Your task to perform on an android device: Search for Italian restaurants on Maps Image 0: 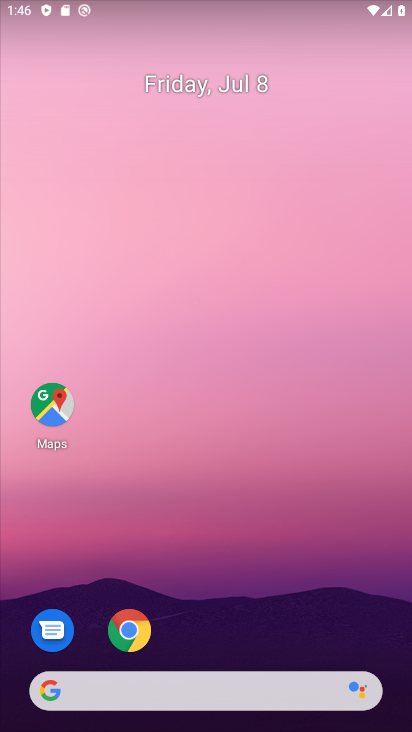
Step 0: drag from (276, 620) to (244, 146)
Your task to perform on an android device: Search for Italian restaurants on Maps Image 1: 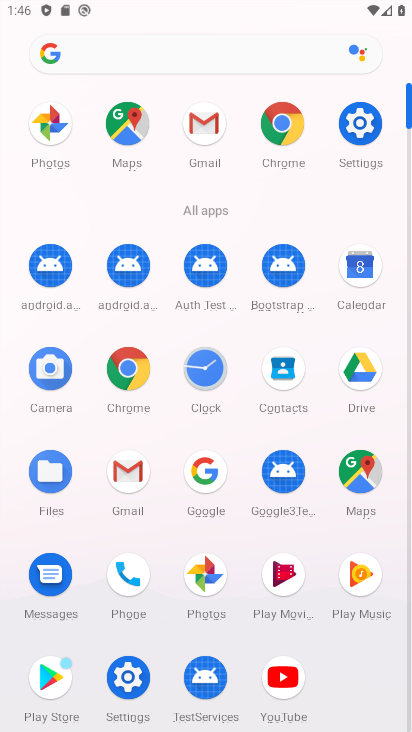
Step 1: click (359, 461)
Your task to perform on an android device: Search for Italian restaurants on Maps Image 2: 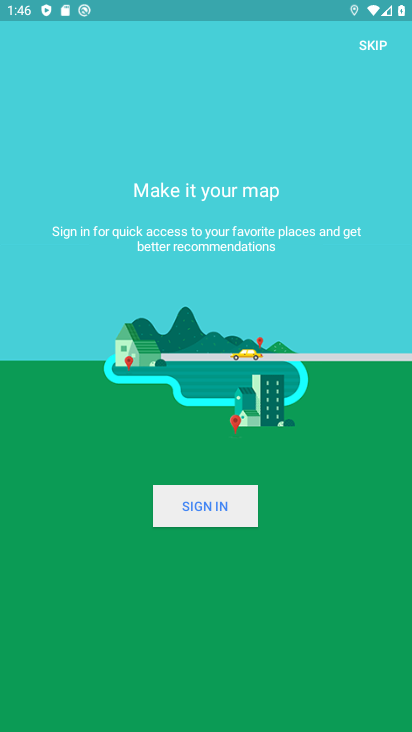
Step 2: click (371, 38)
Your task to perform on an android device: Search for Italian restaurants on Maps Image 3: 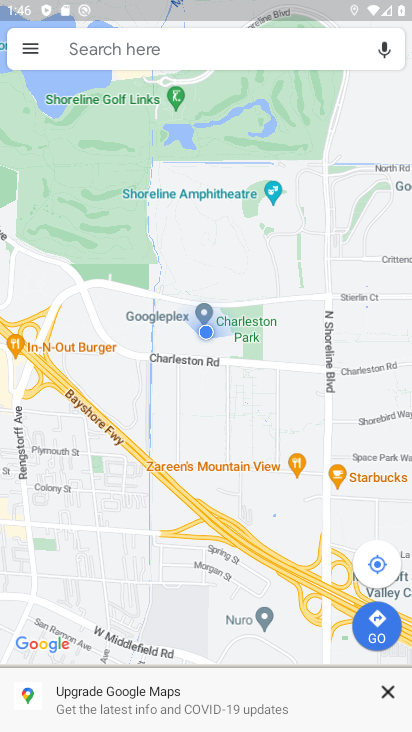
Step 3: click (244, 46)
Your task to perform on an android device: Search for Italian restaurants on Maps Image 4: 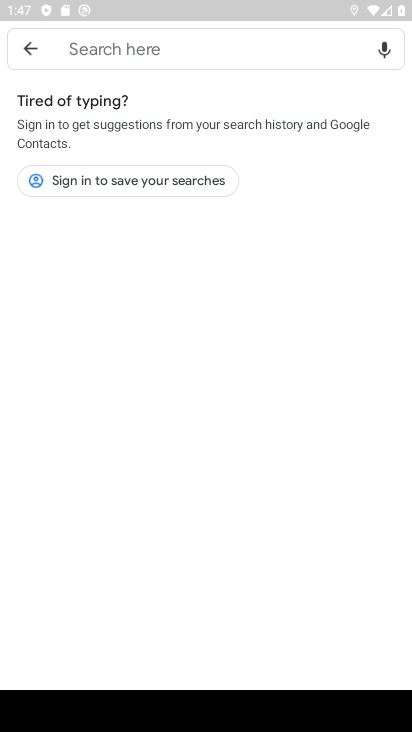
Step 4: type "Italian restaurants"
Your task to perform on an android device: Search for Italian restaurants on Maps Image 5: 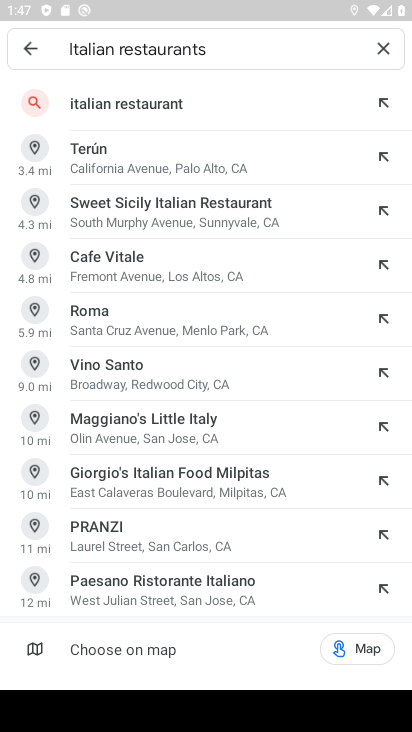
Step 5: press enter
Your task to perform on an android device: Search for Italian restaurants on Maps Image 6: 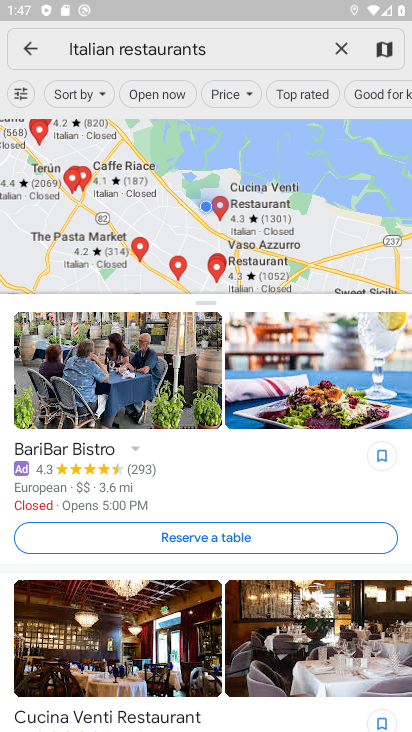
Step 6: task complete